Your task to perform on an android device: Go to Google maps Image 0: 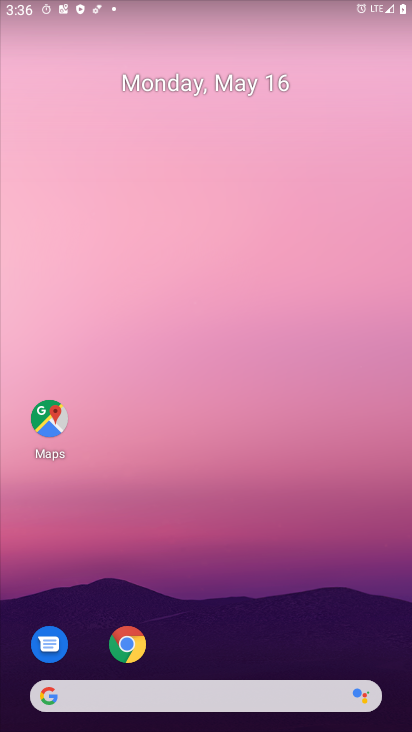
Step 0: drag from (263, 616) to (370, 24)
Your task to perform on an android device: Go to Google maps Image 1: 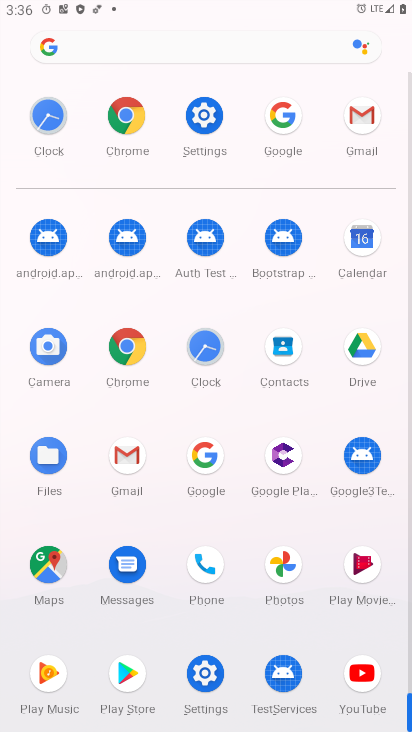
Step 1: click (57, 580)
Your task to perform on an android device: Go to Google maps Image 2: 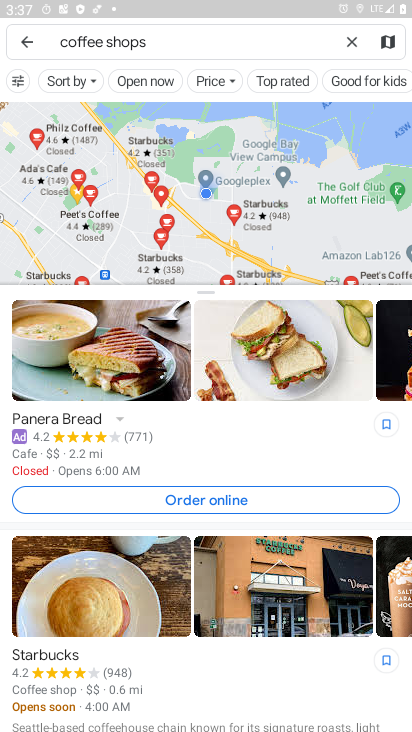
Step 2: task complete